Your task to perform on an android device: change notifications settings Image 0: 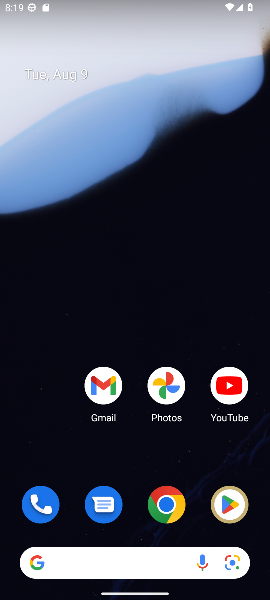
Step 0: drag from (137, 481) to (114, 20)
Your task to perform on an android device: change notifications settings Image 1: 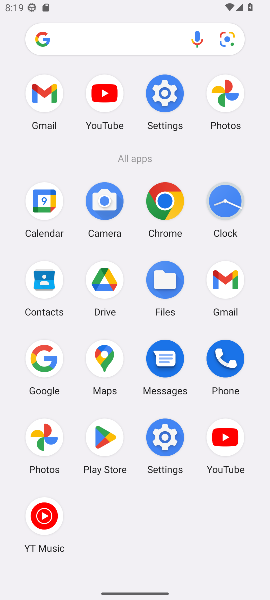
Step 1: click (164, 94)
Your task to perform on an android device: change notifications settings Image 2: 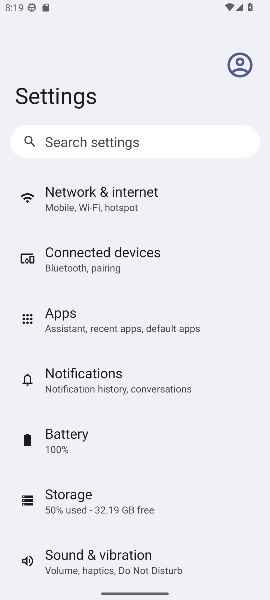
Step 2: click (90, 376)
Your task to perform on an android device: change notifications settings Image 3: 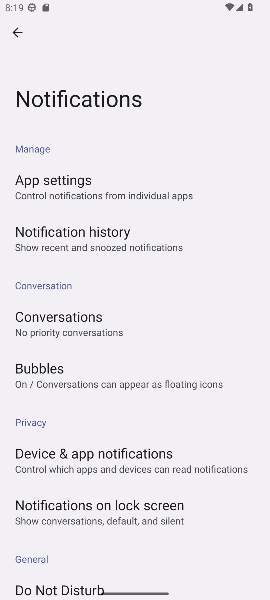
Step 3: click (61, 184)
Your task to perform on an android device: change notifications settings Image 4: 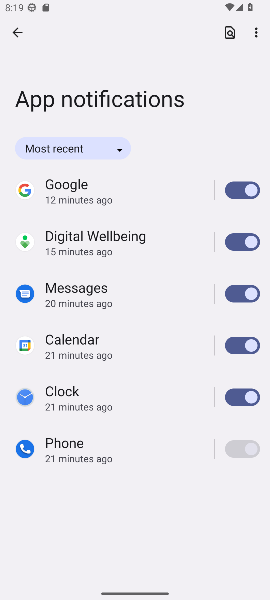
Step 4: click (111, 146)
Your task to perform on an android device: change notifications settings Image 5: 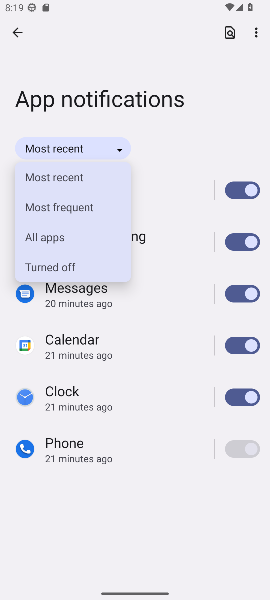
Step 5: click (50, 261)
Your task to perform on an android device: change notifications settings Image 6: 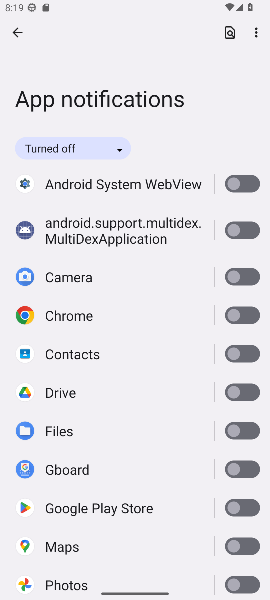
Step 6: click (115, 149)
Your task to perform on an android device: change notifications settings Image 7: 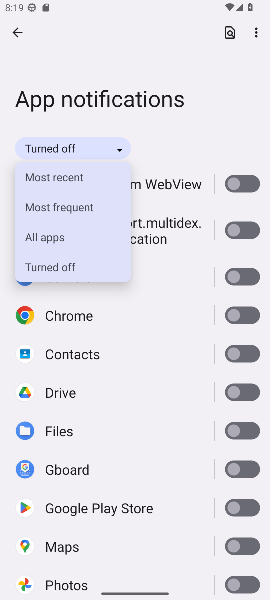
Step 7: task complete